Your task to perform on an android device: Add "macbook pro 13 inch" to the cart on amazon.com, then select checkout. Image 0: 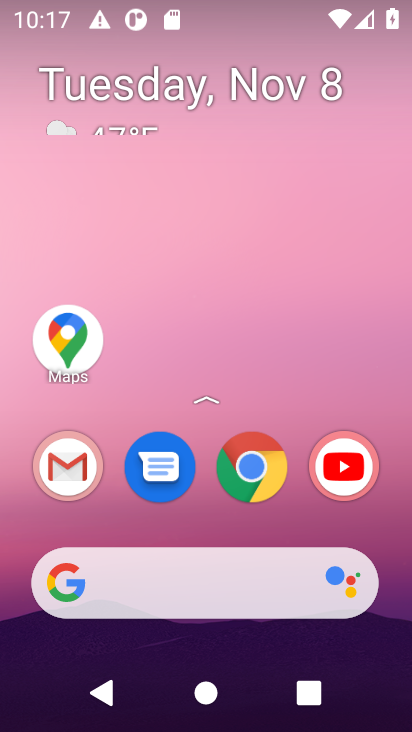
Step 0: click (221, 578)
Your task to perform on an android device: Add "macbook pro 13 inch" to the cart on amazon.com, then select checkout. Image 1: 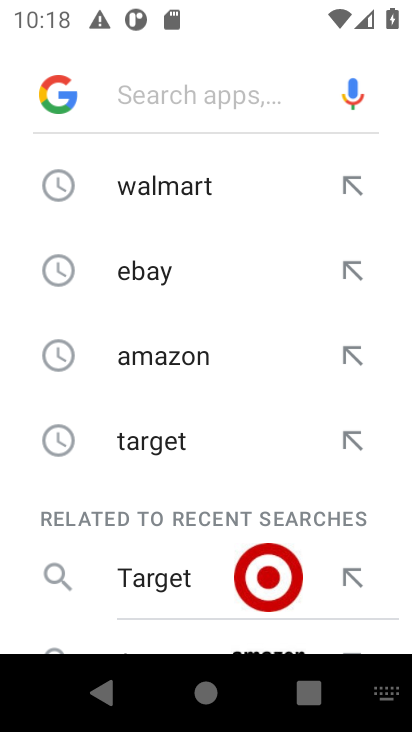
Step 1: click (139, 364)
Your task to perform on an android device: Add "macbook pro 13 inch" to the cart on amazon.com, then select checkout. Image 2: 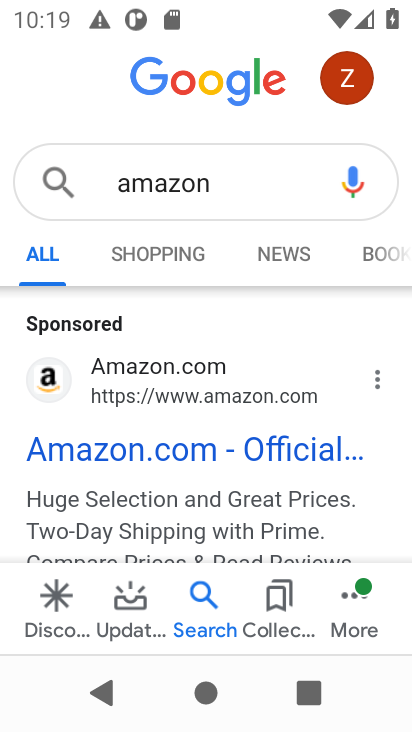
Step 2: click (170, 469)
Your task to perform on an android device: Add "macbook pro 13 inch" to the cart on amazon.com, then select checkout. Image 3: 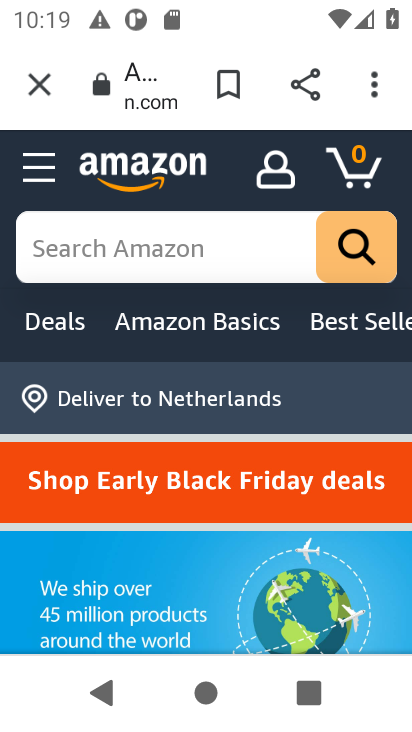
Step 3: click (145, 263)
Your task to perform on an android device: Add "macbook pro 13 inch" to the cart on amazon.com, then select checkout. Image 4: 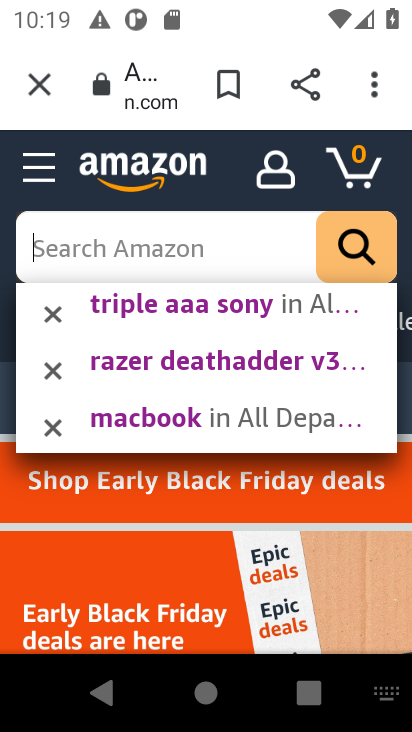
Step 4: type "macbook pro 13"
Your task to perform on an android device: Add "macbook pro 13 inch" to the cart on amazon.com, then select checkout. Image 5: 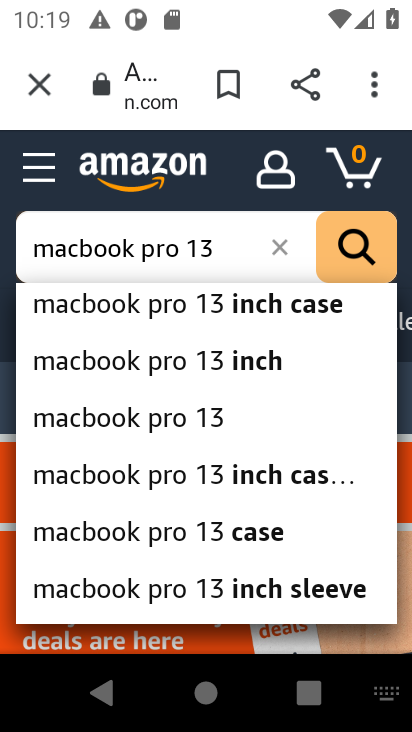
Step 5: click (150, 307)
Your task to perform on an android device: Add "macbook pro 13 inch" to the cart on amazon.com, then select checkout. Image 6: 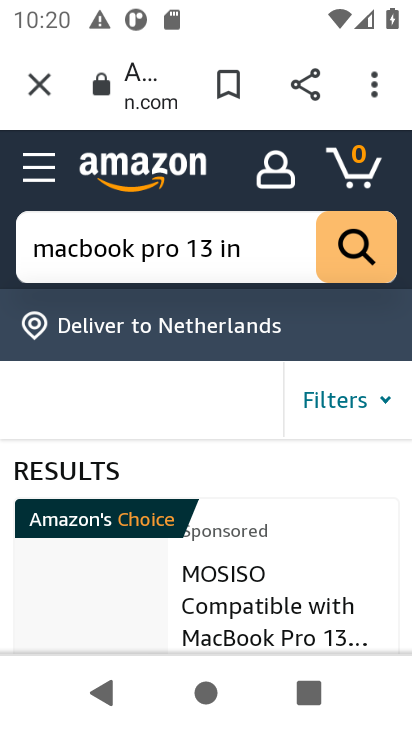
Step 6: task complete